Your task to perform on an android device: Search for pizza restaurants on Maps Image 0: 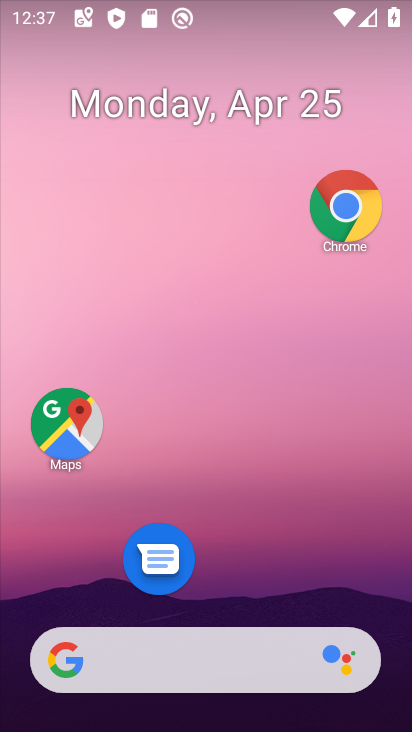
Step 0: click (85, 427)
Your task to perform on an android device: Search for pizza restaurants on Maps Image 1: 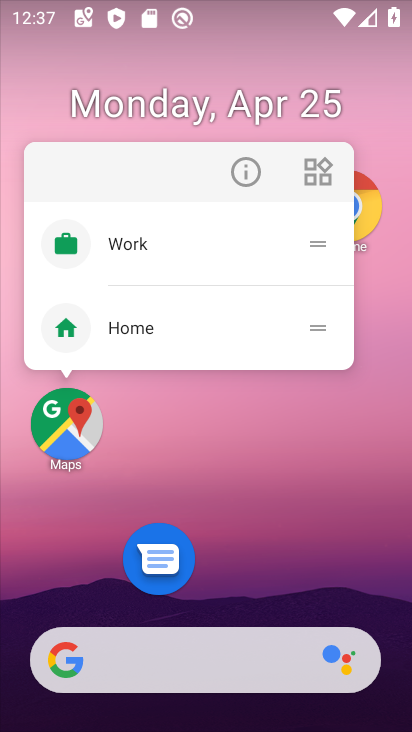
Step 1: click (74, 428)
Your task to perform on an android device: Search for pizza restaurants on Maps Image 2: 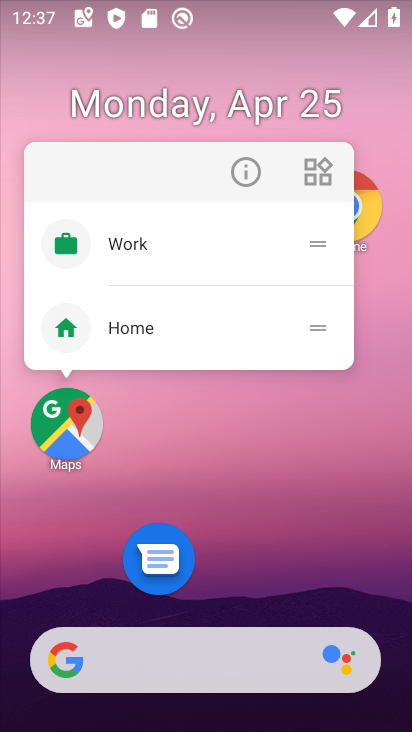
Step 2: click (71, 420)
Your task to perform on an android device: Search for pizza restaurants on Maps Image 3: 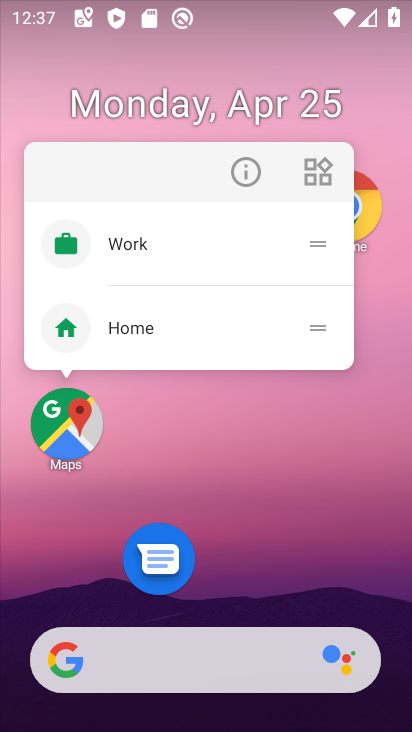
Step 3: click (66, 419)
Your task to perform on an android device: Search for pizza restaurants on Maps Image 4: 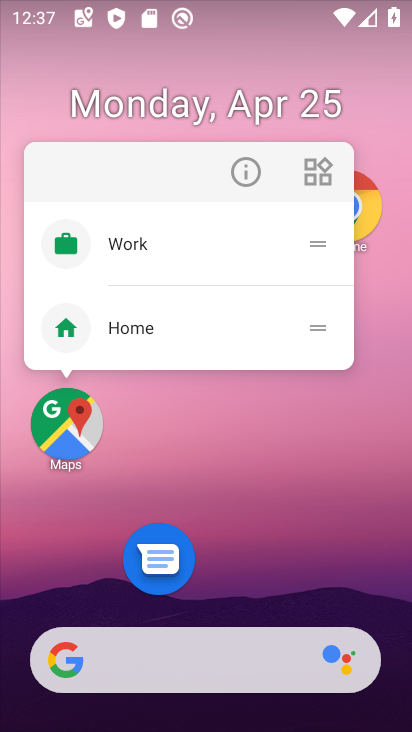
Step 4: click (70, 428)
Your task to perform on an android device: Search for pizza restaurants on Maps Image 5: 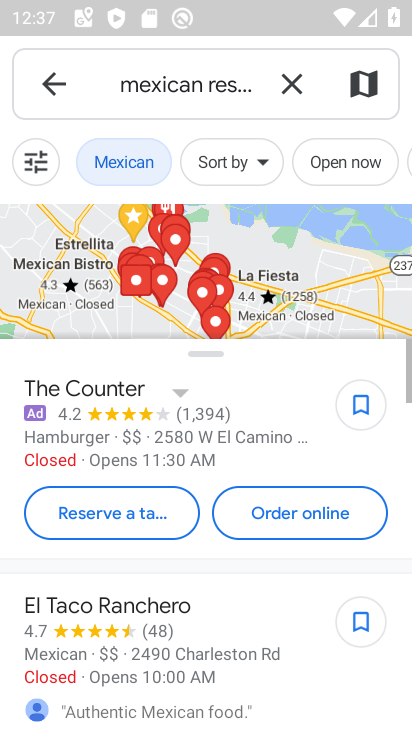
Step 5: click (296, 100)
Your task to perform on an android device: Search for pizza restaurants on Maps Image 6: 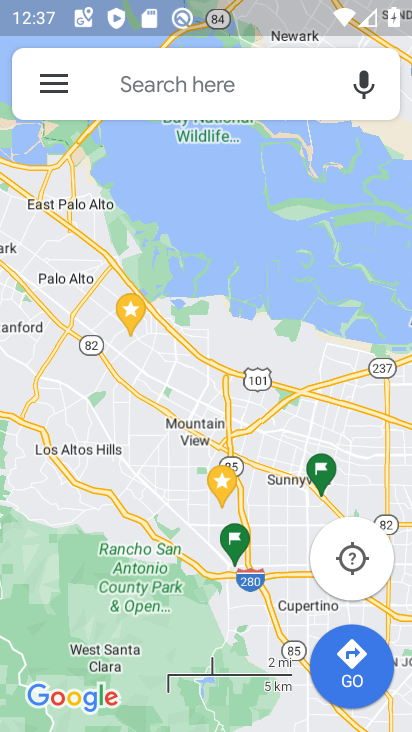
Step 6: click (191, 84)
Your task to perform on an android device: Search for pizza restaurants on Maps Image 7: 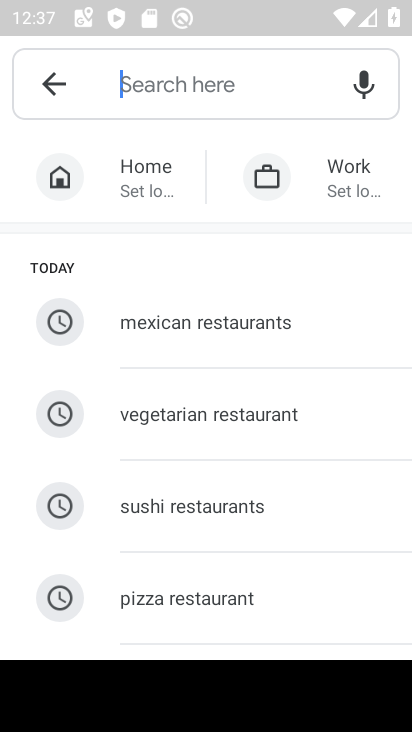
Step 7: drag from (218, 589) to (256, 248)
Your task to perform on an android device: Search for pizza restaurants on Maps Image 8: 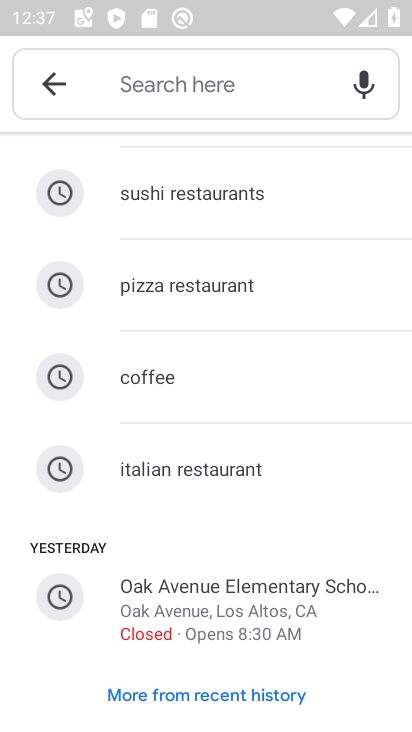
Step 8: click (196, 278)
Your task to perform on an android device: Search for pizza restaurants on Maps Image 9: 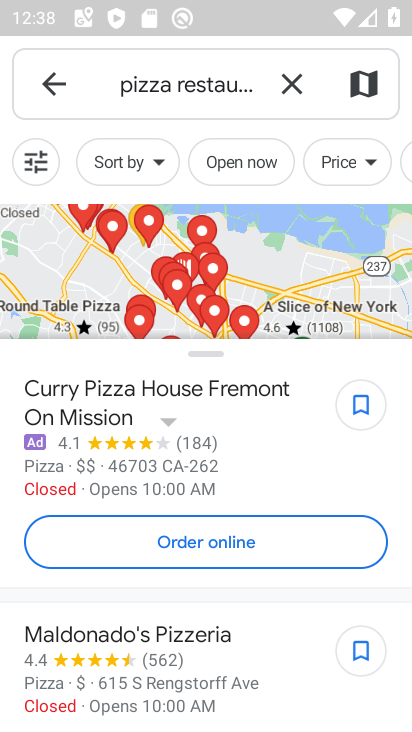
Step 9: task complete